Your task to perform on an android device: Go to settings Image 0: 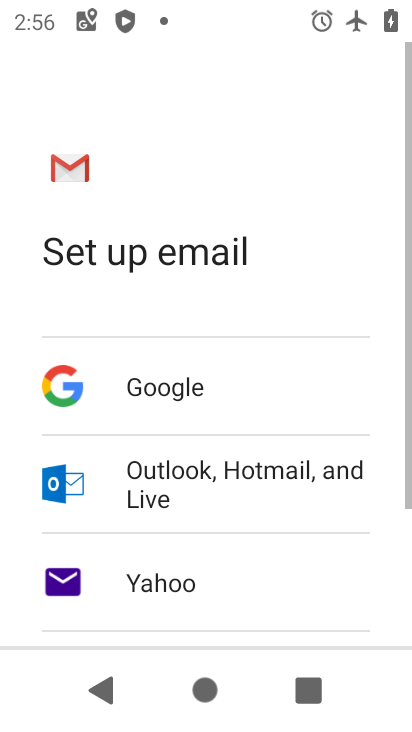
Step 0: press home button
Your task to perform on an android device: Go to settings Image 1: 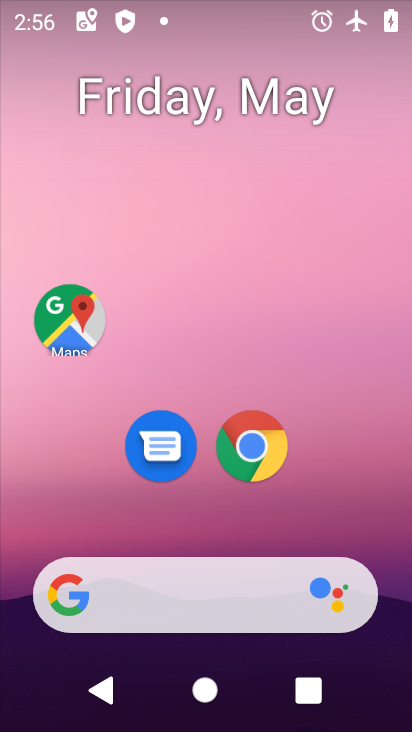
Step 1: drag from (406, 548) to (309, 65)
Your task to perform on an android device: Go to settings Image 2: 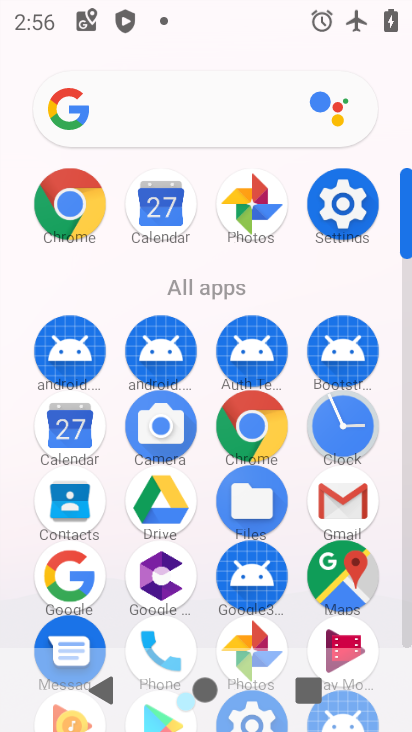
Step 2: click (350, 192)
Your task to perform on an android device: Go to settings Image 3: 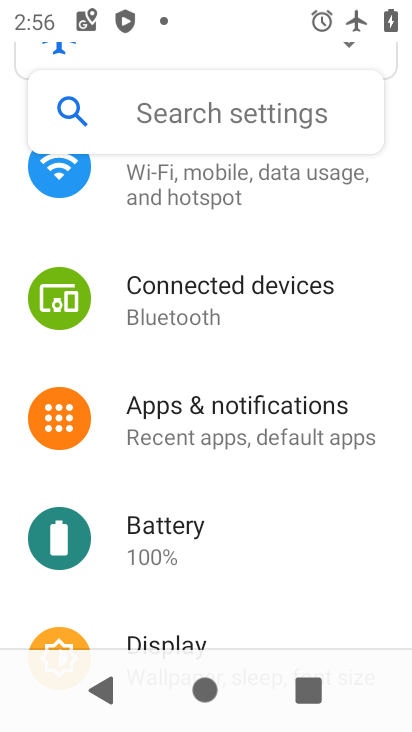
Step 3: task complete